Your task to perform on an android device: Go to calendar. Show me events next week Image 0: 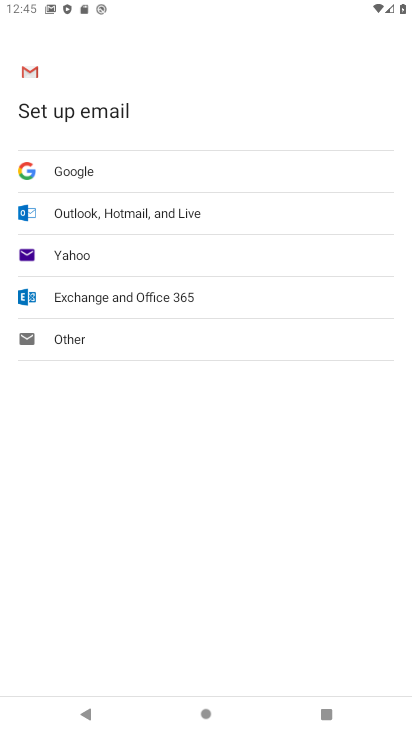
Step 0: press home button
Your task to perform on an android device: Go to calendar. Show me events next week Image 1: 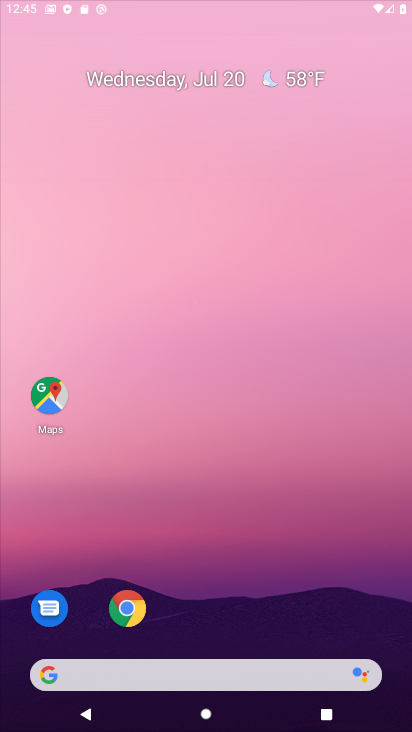
Step 1: drag from (237, 687) to (246, 401)
Your task to perform on an android device: Go to calendar. Show me events next week Image 2: 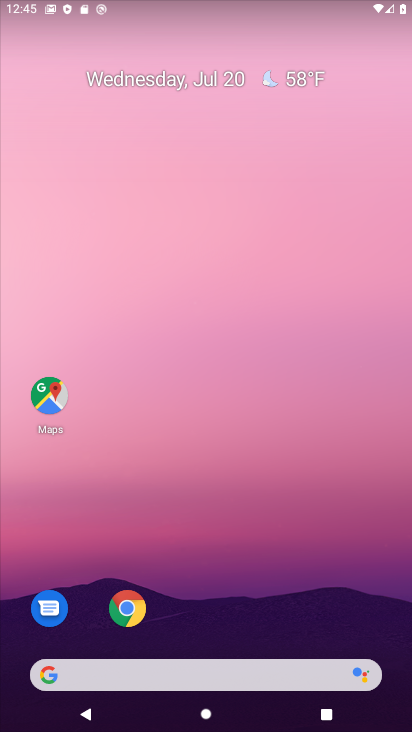
Step 2: drag from (225, 536) to (194, 107)
Your task to perform on an android device: Go to calendar. Show me events next week Image 3: 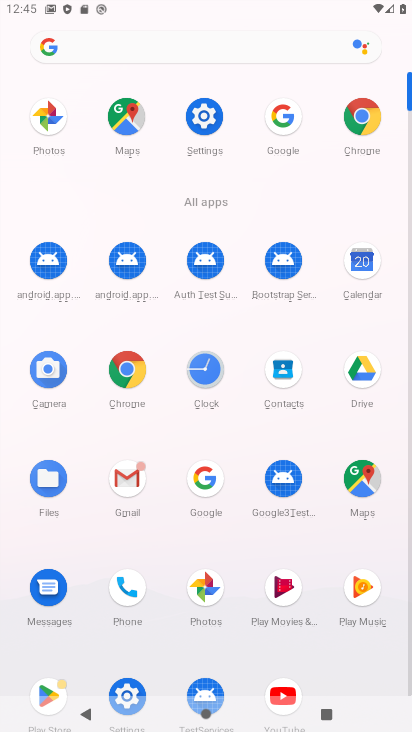
Step 3: click (363, 264)
Your task to perform on an android device: Go to calendar. Show me events next week Image 4: 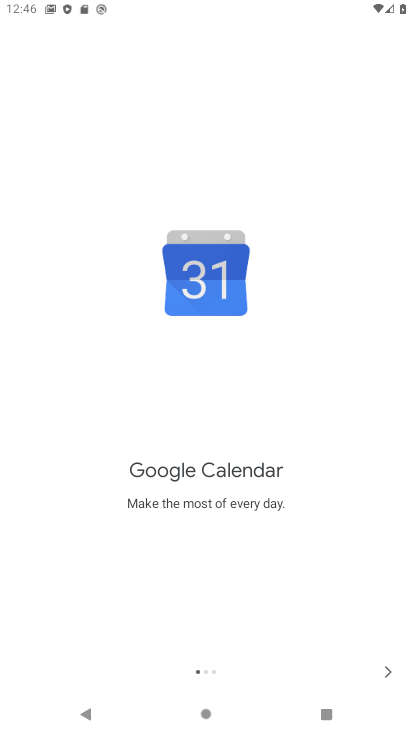
Step 4: click (387, 669)
Your task to perform on an android device: Go to calendar. Show me events next week Image 5: 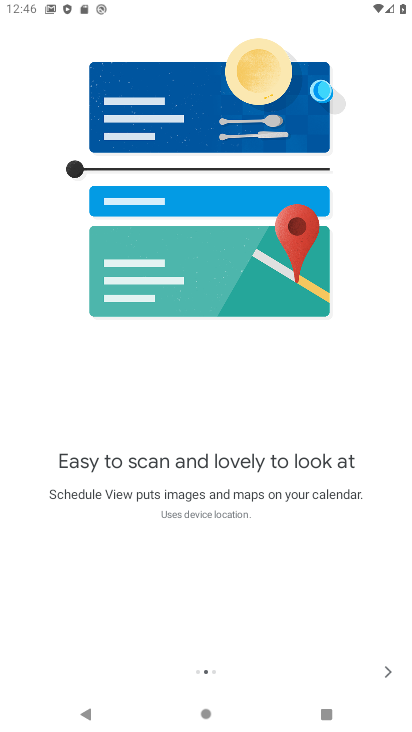
Step 5: click (387, 669)
Your task to perform on an android device: Go to calendar. Show me events next week Image 6: 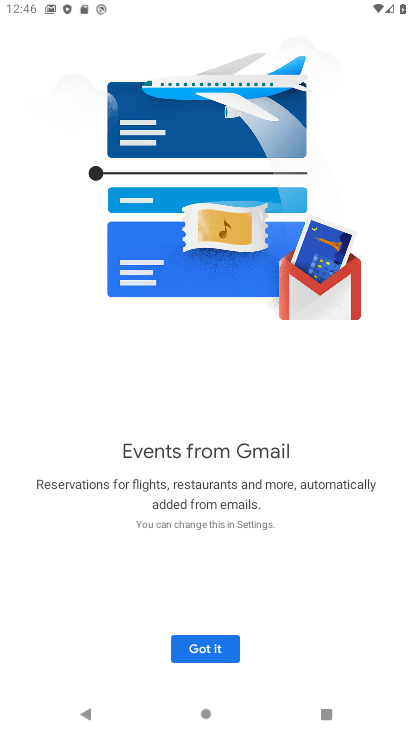
Step 6: click (207, 651)
Your task to perform on an android device: Go to calendar. Show me events next week Image 7: 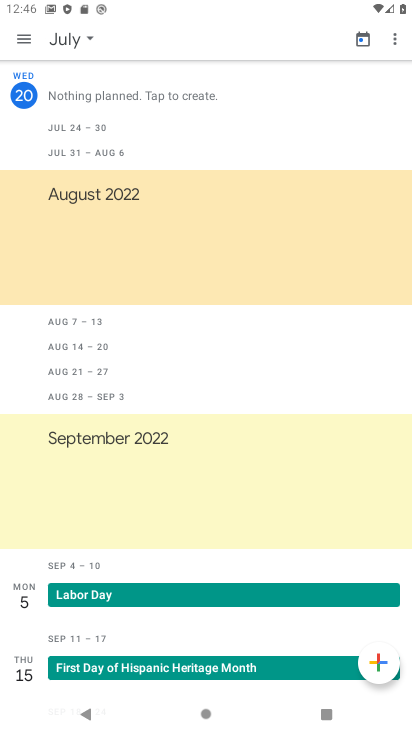
Step 7: click (85, 37)
Your task to perform on an android device: Go to calendar. Show me events next week Image 8: 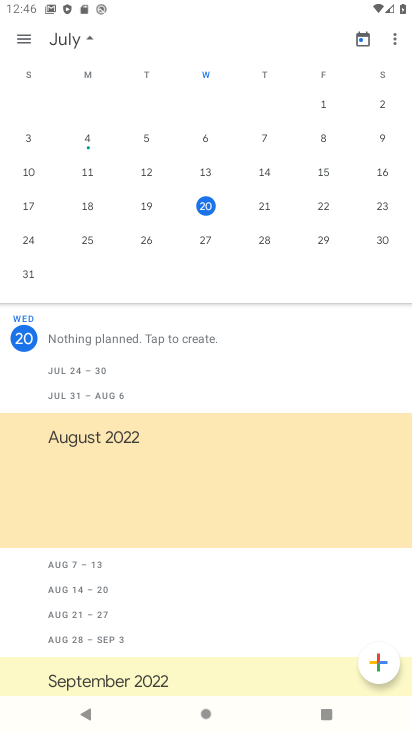
Step 8: click (23, 35)
Your task to perform on an android device: Go to calendar. Show me events next week Image 9: 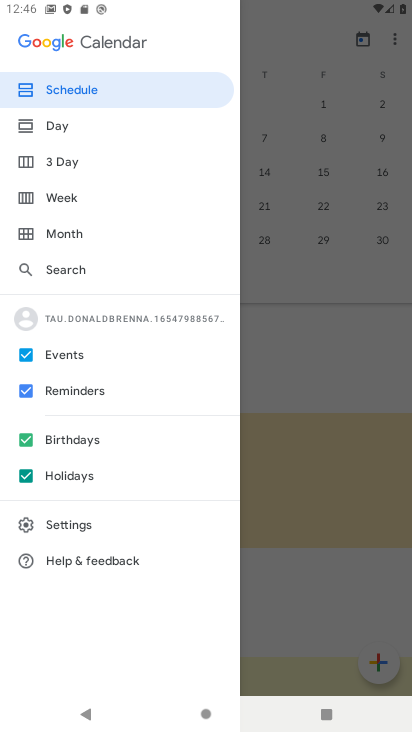
Step 9: click (28, 478)
Your task to perform on an android device: Go to calendar. Show me events next week Image 10: 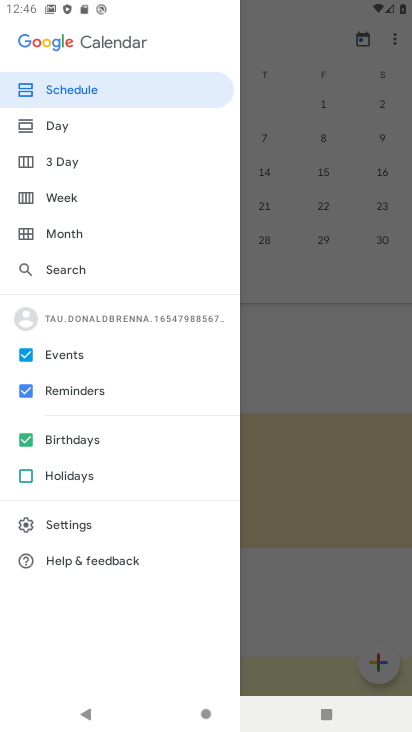
Step 10: click (31, 433)
Your task to perform on an android device: Go to calendar. Show me events next week Image 11: 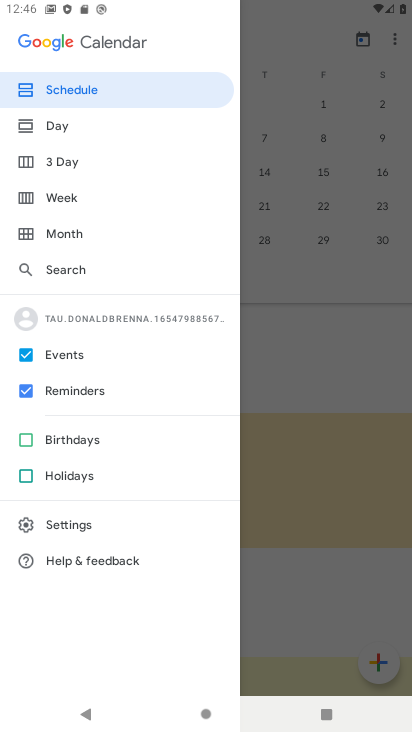
Step 11: click (29, 385)
Your task to perform on an android device: Go to calendar. Show me events next week Image 12: 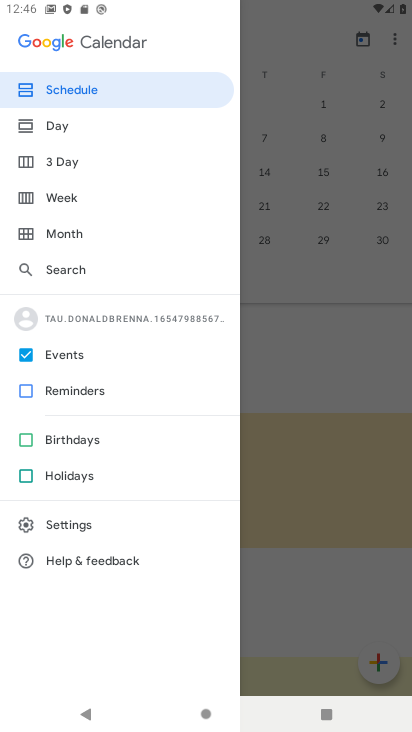
Step 12: click (64, 195)
Your task to perform on an android device: Go to calendar. Show me events next week Image 13: 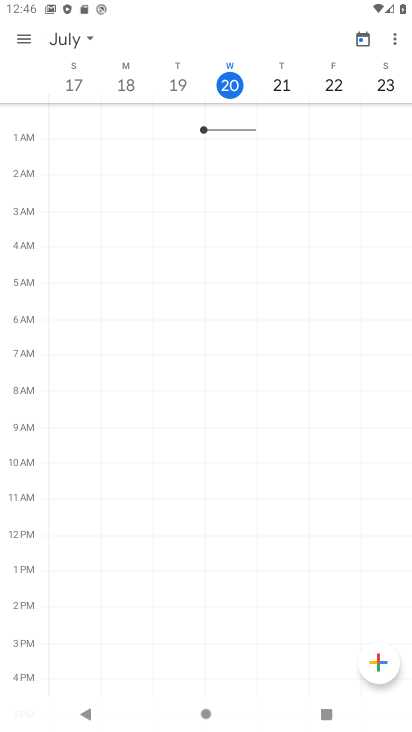
Step 13: drag from (388, 82) to (255, 75)
Your task to perform on an android device: Go to calendar. Show me events next week Image 14: 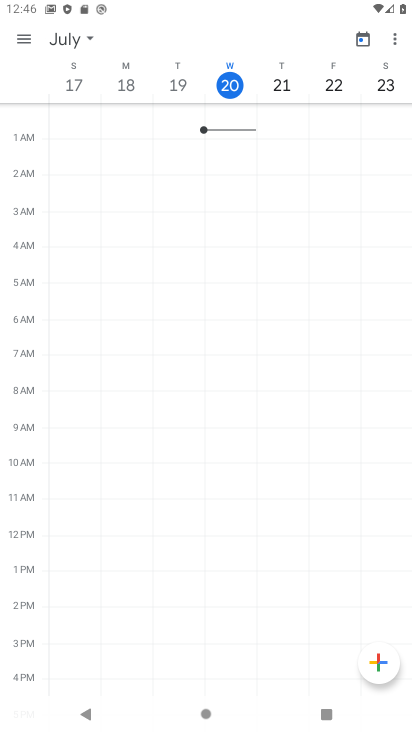
Step 14: drag from (384, 83) to (111, 84)
Your task to perform on an android device: Go to calendar. Show me events next week Image 15: 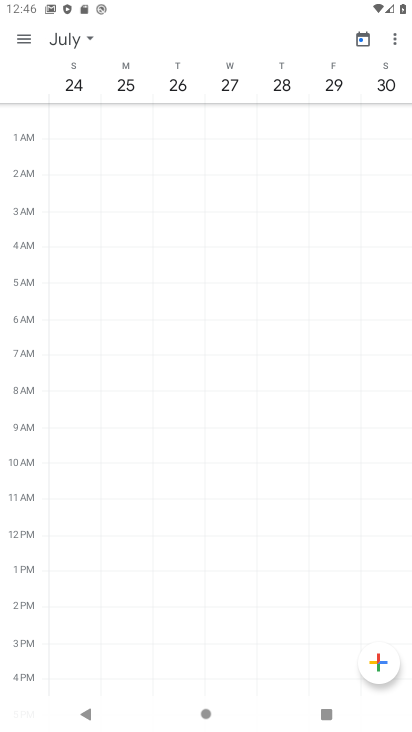
Step 15: click (228, 79)
Your task to perform on an android device: Go to calendar. Show me events next week Image 16: 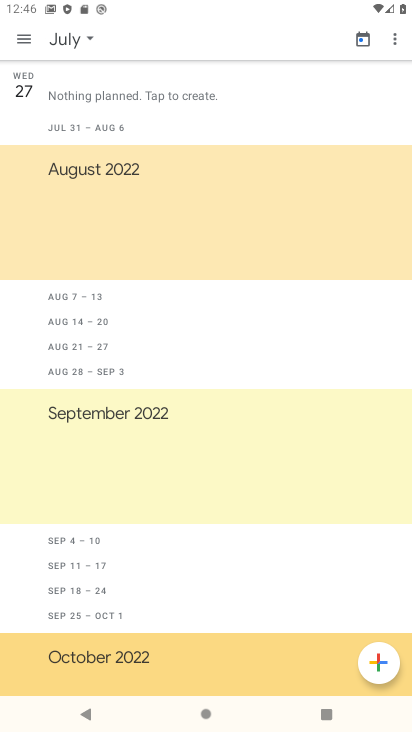
Step 16: task complete